Your task to perform on an android device: See recent photos Image 0: 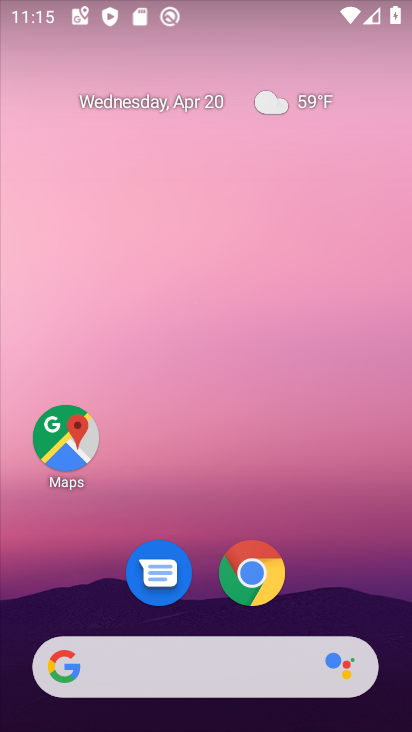
Step 0: drag from (389, 536) to (371, 19)
Your task to perform on an android device: See recent photos Image 1: 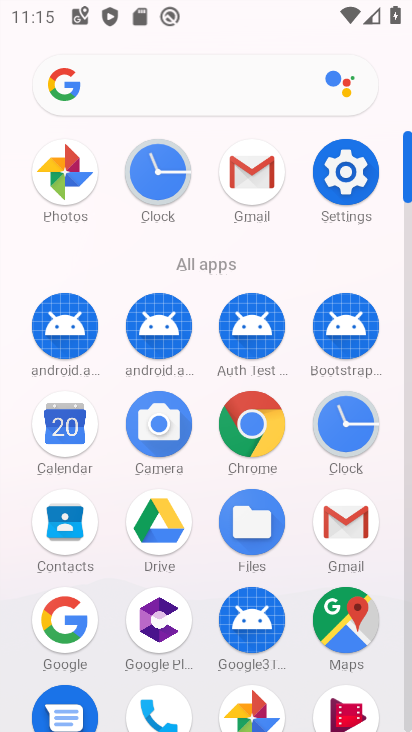
Step 1: click (61, 174)
Your task to perform on an android device: See recent photos Image 2: 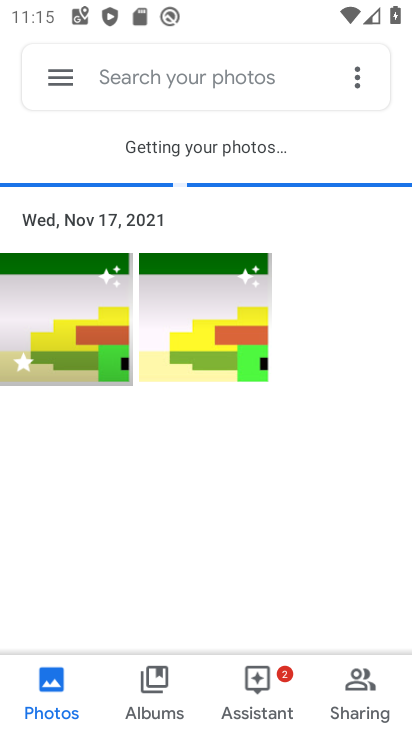
Step 2: click (58, 78)
Your task to perform on an android device: See recent photos Image 3: 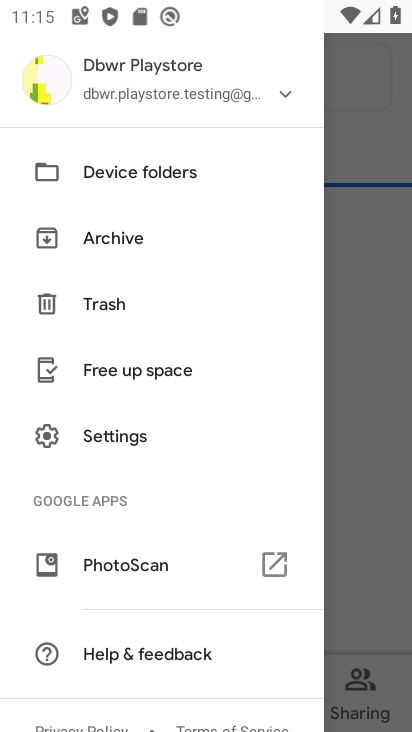
Step 3: task complete